Your task to perform on an android device: set an alarm Image 0: 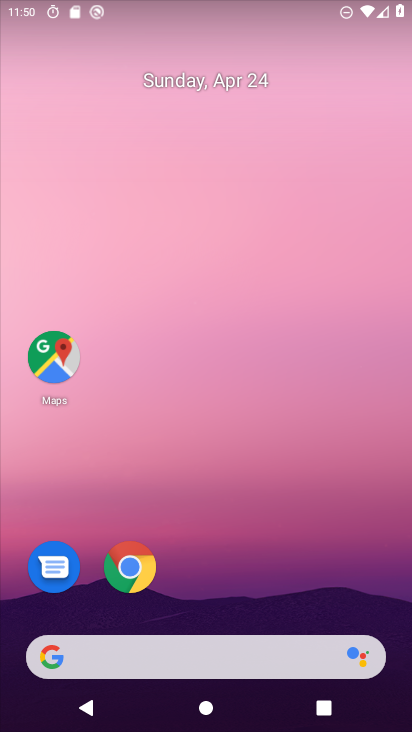
Step 0: drag from (300, 637) to (403, 24)
Your task to perform on an android device: set an alarm Image 1: 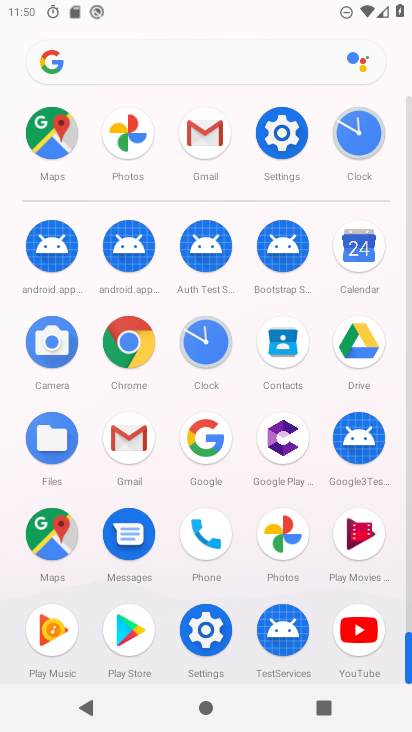
Step 1: click (223, 341)
Your task to perform on an android device: set an alarm Image 2: 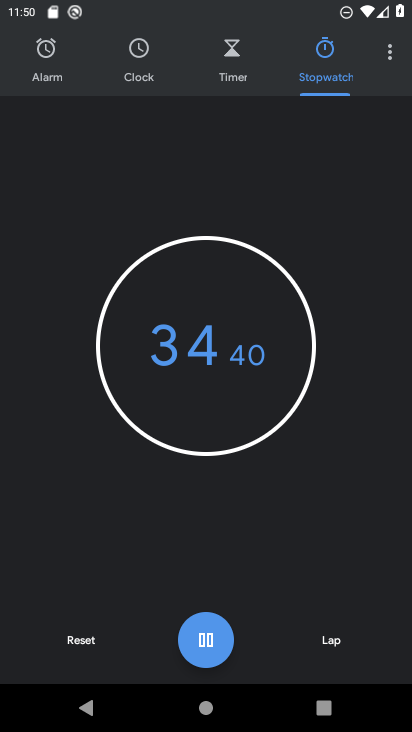
Step 2: click (41, 50)
Your task to perform on an android device: set an alarm Image 3: 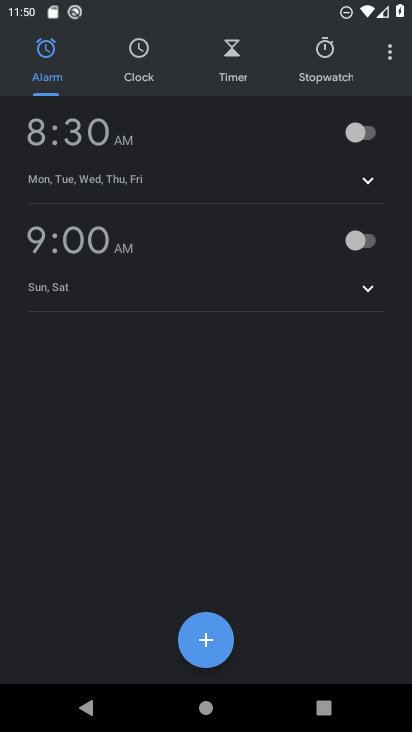
Step 3: click (371, 130)
Your task to perform on an android device: set an alarm Image 4: 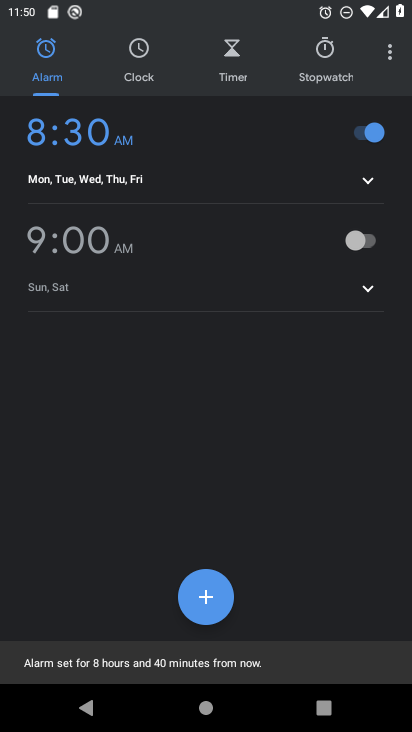
Step 4: task complete